Your task to perform on an android device: open chrome privacy settings Image 0: 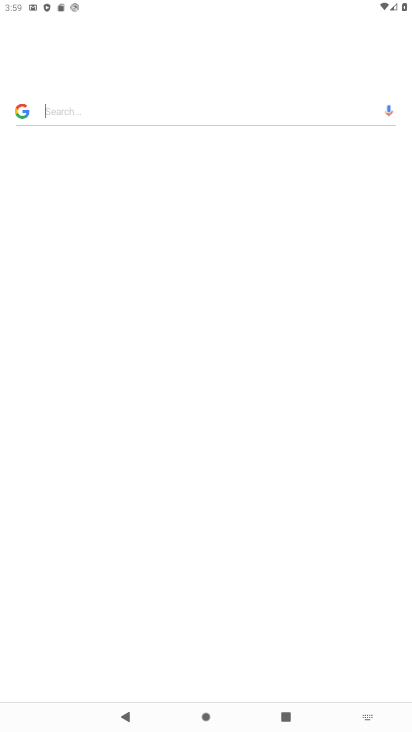
Step 0: drag from (314, 526) to (318, 215)
Your task to perform on an android device: open chrome privacy settings Image 1: 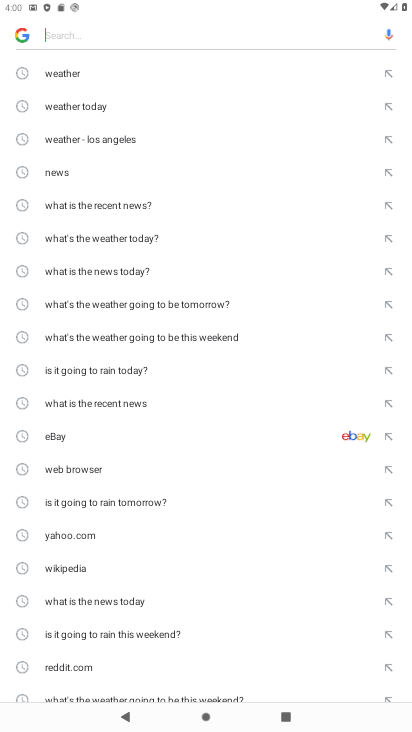
Step 1: press back button
Your task to perform on an android device: open chrome privacy settings Image 2: 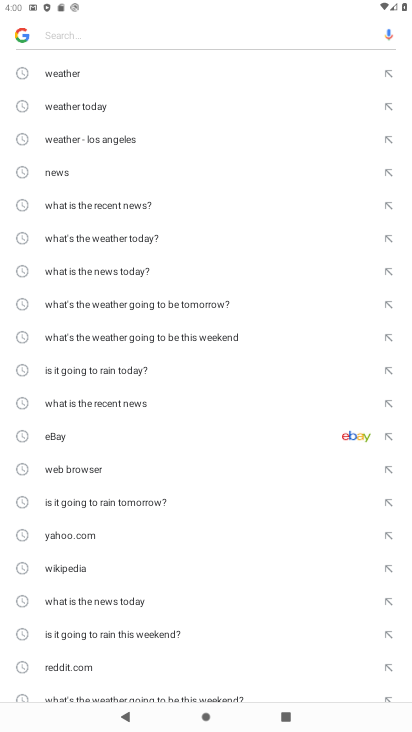
Step 2: press back button
Your task to perform on an android device: open chrome privacy settings Image 3: 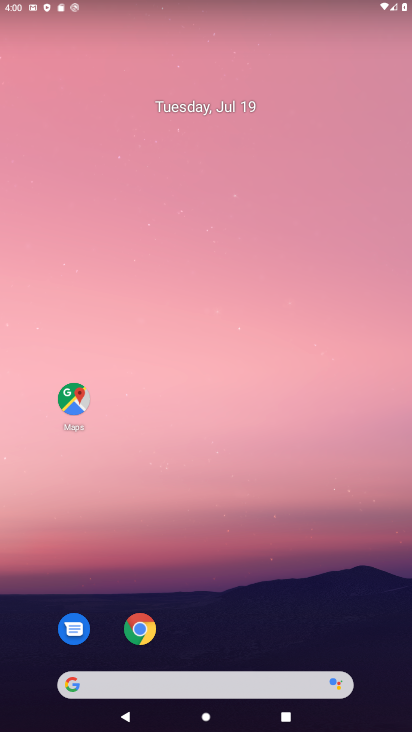
Step 3: click (214, 75)
Your task to perform on an android device: open chrome privacy settings Image 4: 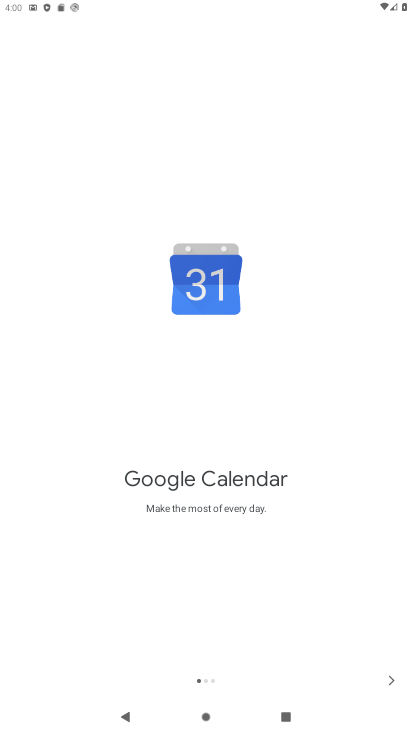
Step 4: press home button
Your task to perform on an android device: open chrome privacy settings Image 5: 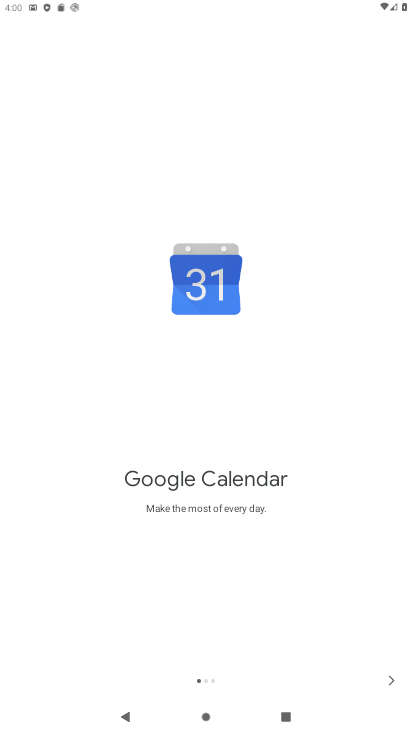
Step 5: press home button
Your task to perform on an android device: open chrome privacy settings Image 6: 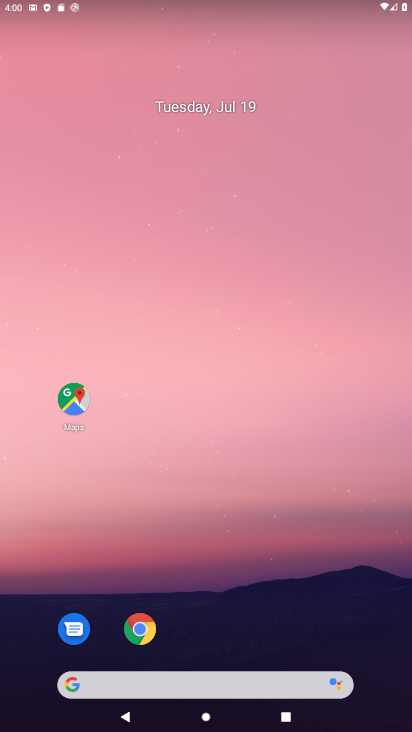
Step 6: drag from (195, 590) to (170, 103)
Your task to perform on an android device: open chrome privacy settings Image 7: 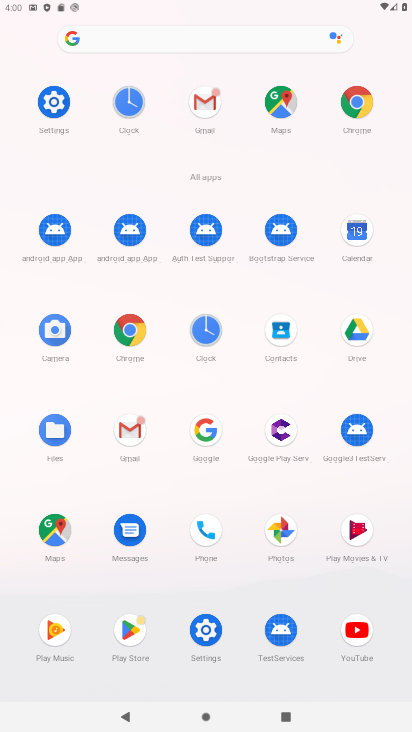
Step 7: click (60, 100)
Your task to perform on an android device: open chrome privacy settings Image 8: 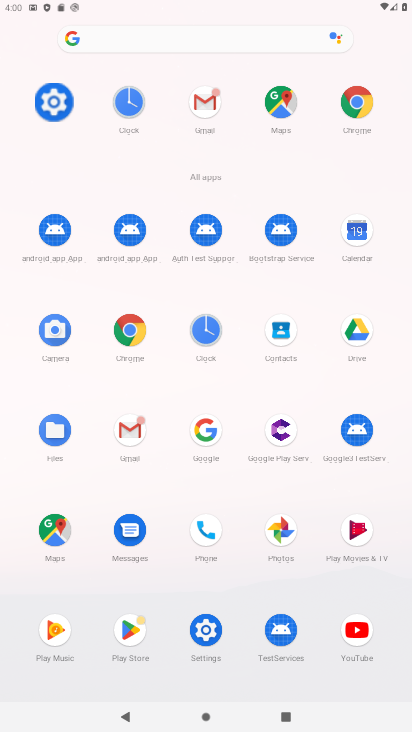
Step 8: click (60, 100)
Your task to perform on an android device: open chrome privacy settings Image 9: 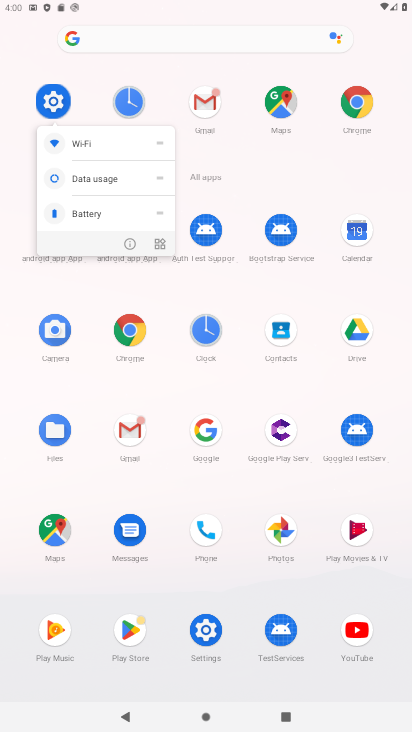
Step 9: click (59, 100)
Your task to perform on an android device: open chrome privacy settings Image 10: 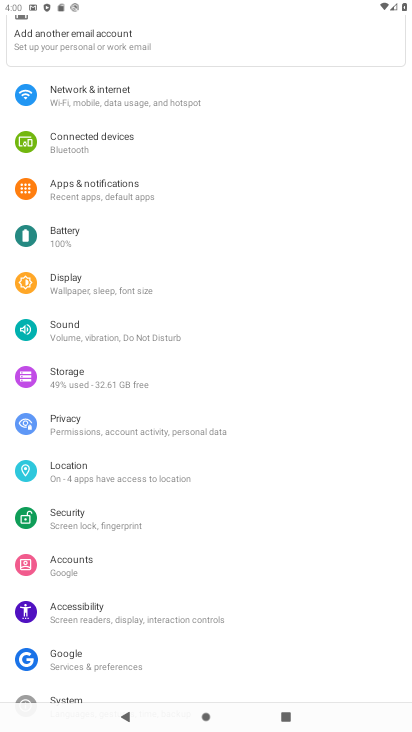
Step 10: click (73, 416)
Your task to perform on an android device: open chrome privacy settings Image 11: 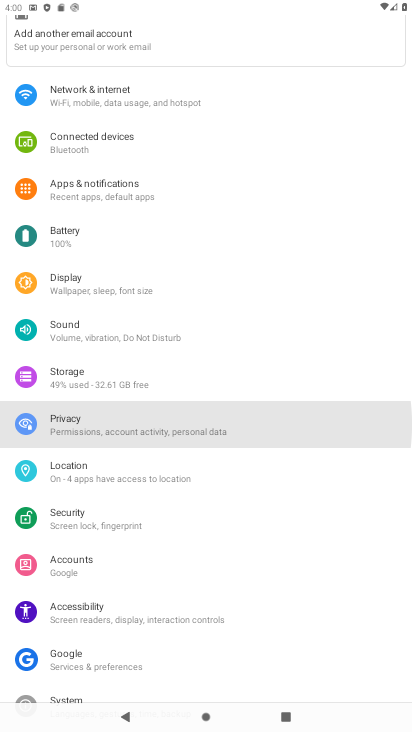
Step 11: click (73, 416)
Your task to perform on an android device: open chrome privacy settings Image 12: 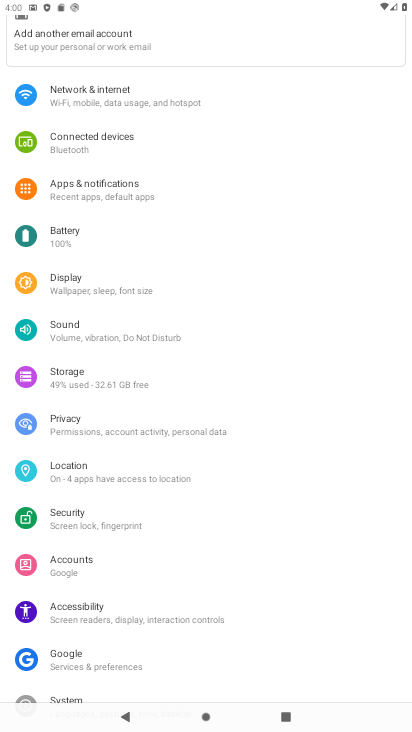
Step 12: click (73, 416)
Your task to perform on an android device: open chrome privacy settings Image 13: 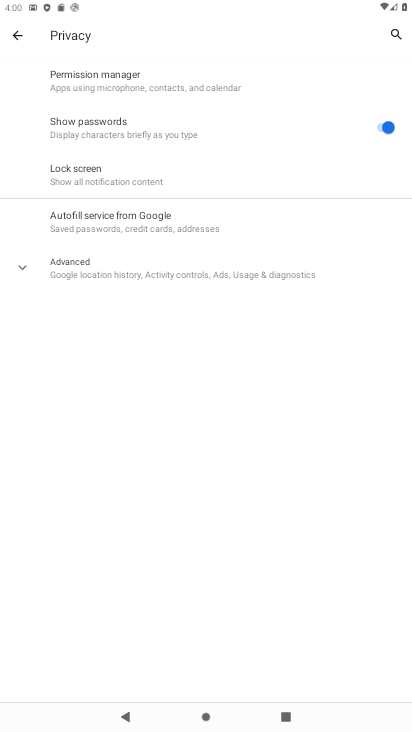
Step 13: task complete